Your task to perform on an android device: Open accessibility settings Image 0: 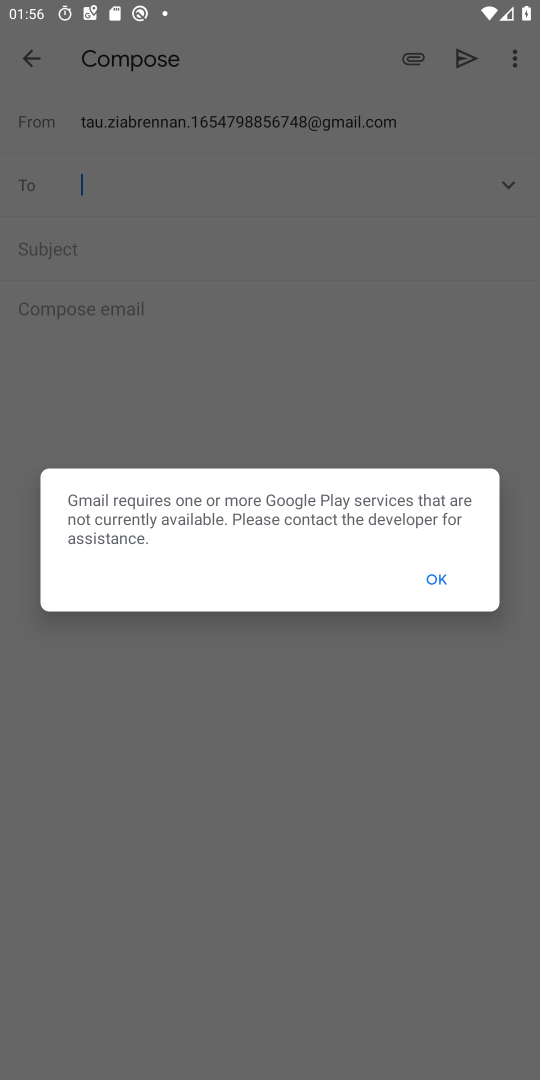
Step 0: press home button
Your task to perform on an android device: Open accessibility settings Image 1: 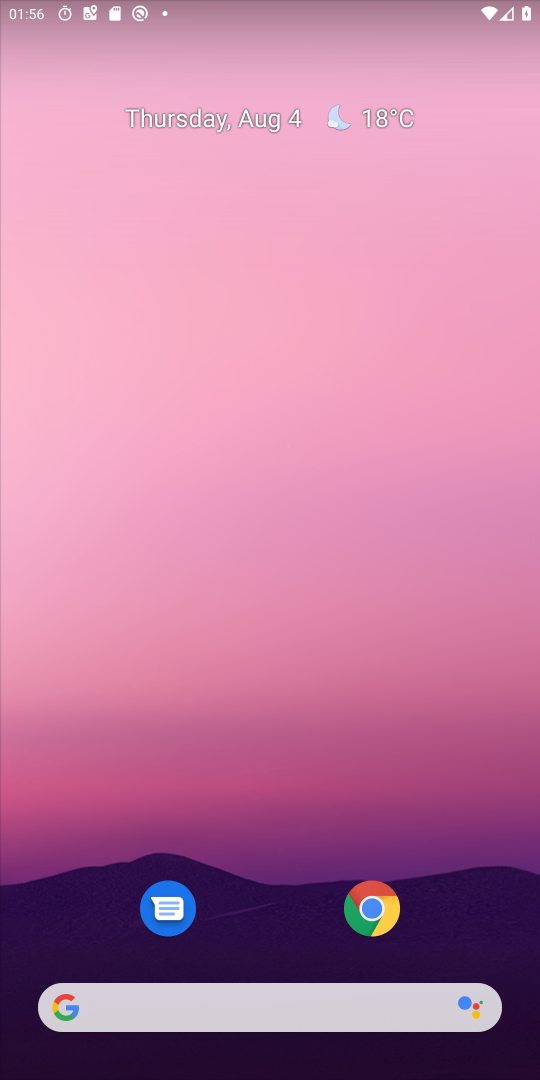
Step 1: drag from (313, 1042) to (218, 444)
Your task to perform on an android device: Open accessibility settings Image 2: 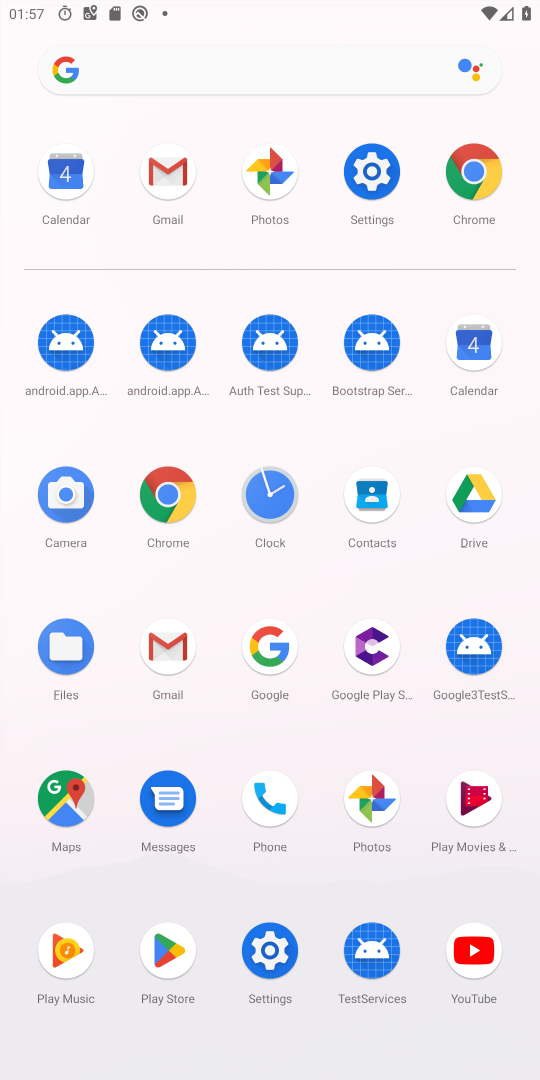
Step 2: click (363, 181)
Your task to perform on an android device: Open accessibility settings Image 3: 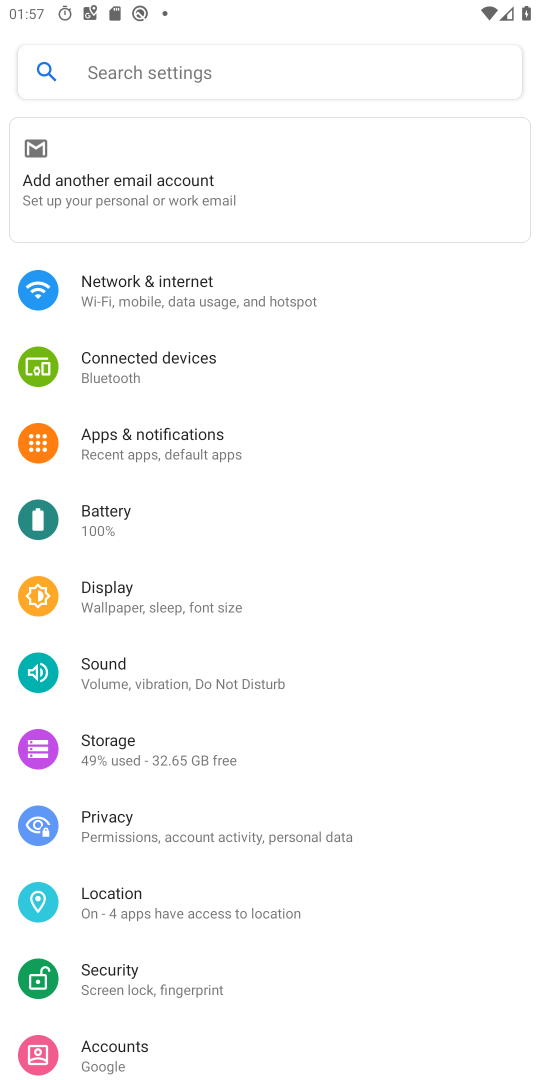
Step 3: click (154, 72)
Your task to perform on an android device: Open accessibility settings Image 4: 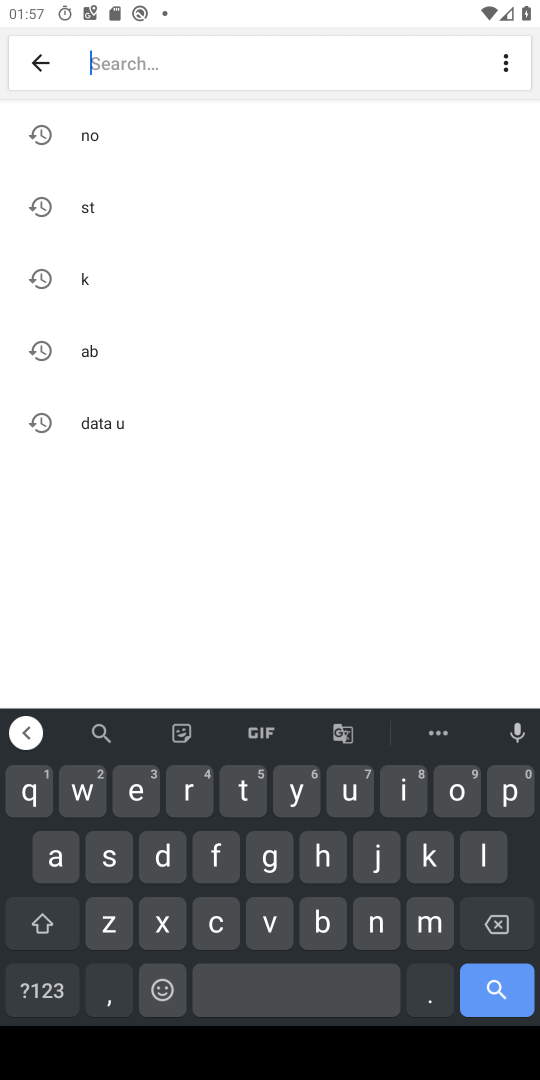
Step 4: click (37, 856)
Your task to perform on an android device: Open accessibility settings Image 5: 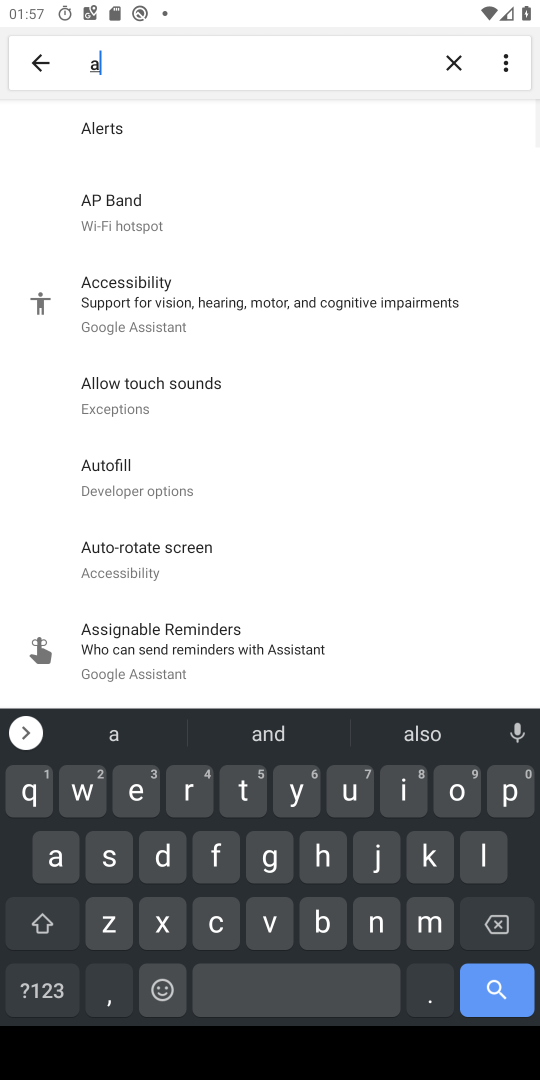
Step 5: click (208, 926)
Your task to perform on an android device: Open accessibility settings Image 6: 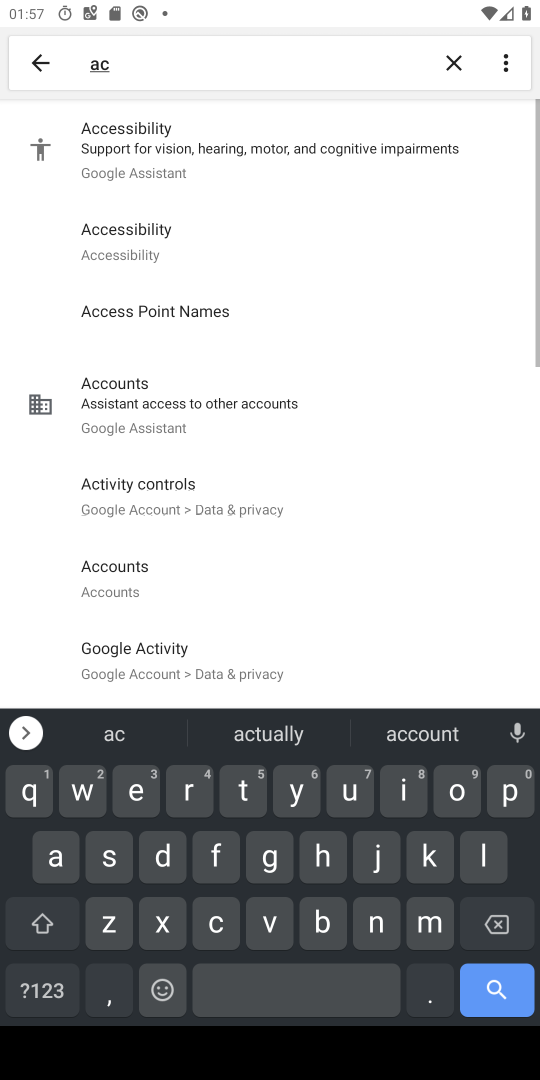
Step 6: click (171, 172)
Your task to perform on an android device: Open accessibility settings Image 7: 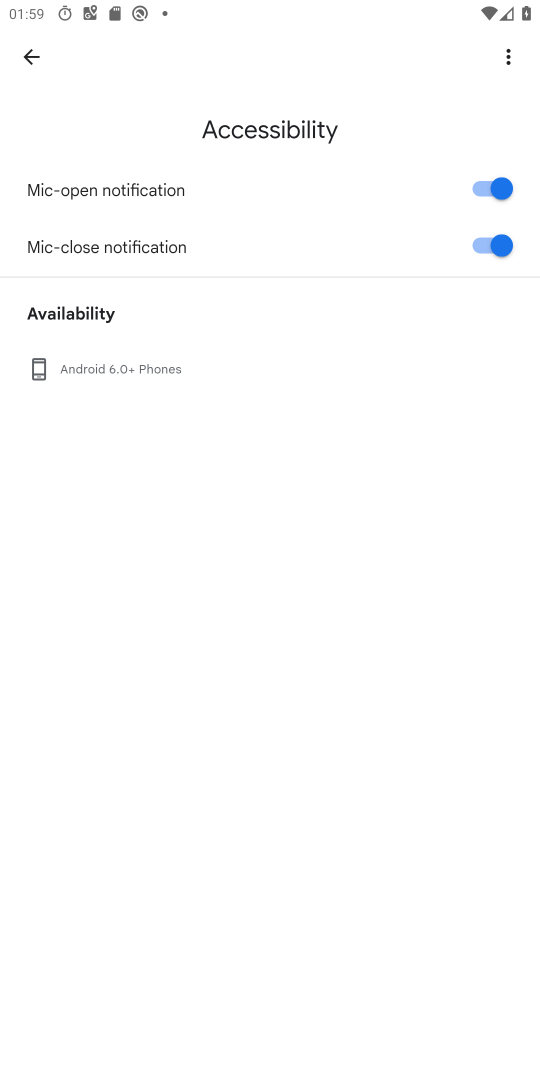
Step 7: task complete